Your task to perform on an android device: turn off improve location accuracy Image 0: 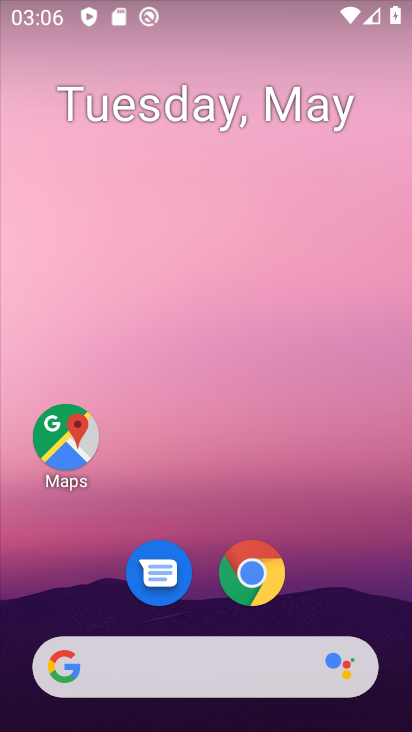
Step 0: drag from (192, 536) to (234, 109)
Your task to perform on an android device: turn off improve location accuracy Image 1: 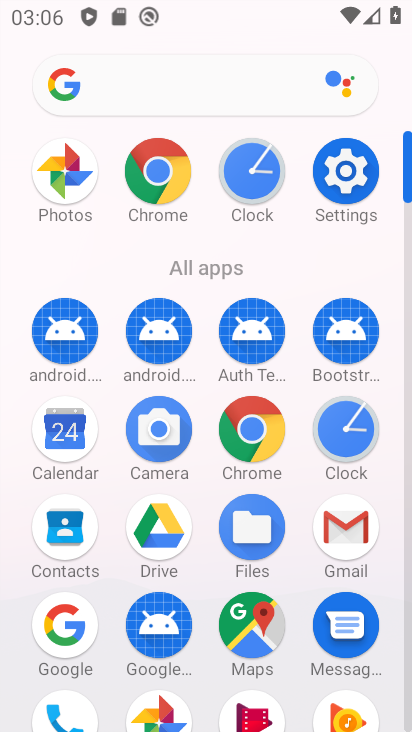
Step 1: click (335, 178)
Your task to perform on an android device: turn off improve location accuracy Image 2: 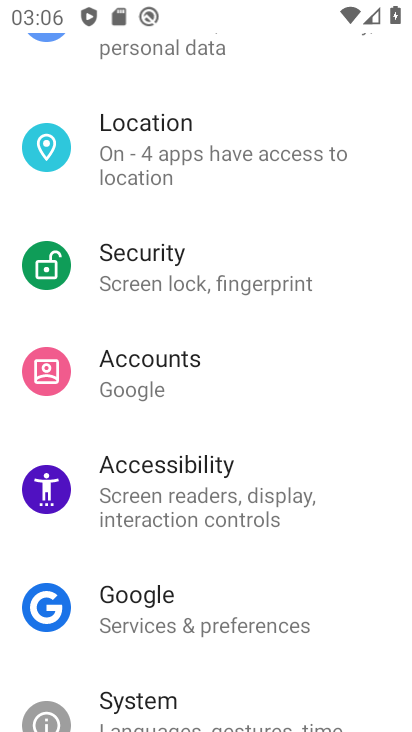
Step 2: click (164, 140)
Your task to perform on an android device: turn off improve location accuracy Image 3: 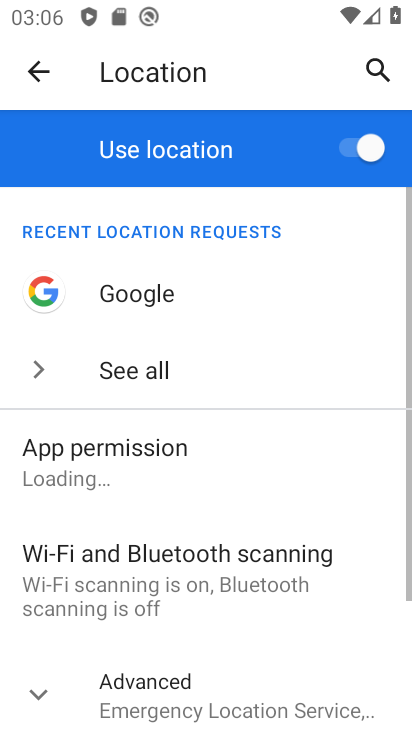
Step 3: drag from (152, 631) to (258, 231)
Your task to perform on an android device: turn off improve location accuracy Image 4: 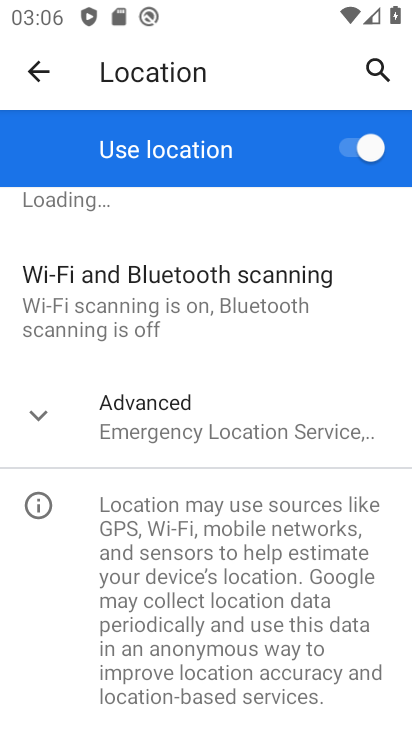
Step 4: click (191, 414)
Your task to perform on an android device: turn off improve location accuracy Image 5: 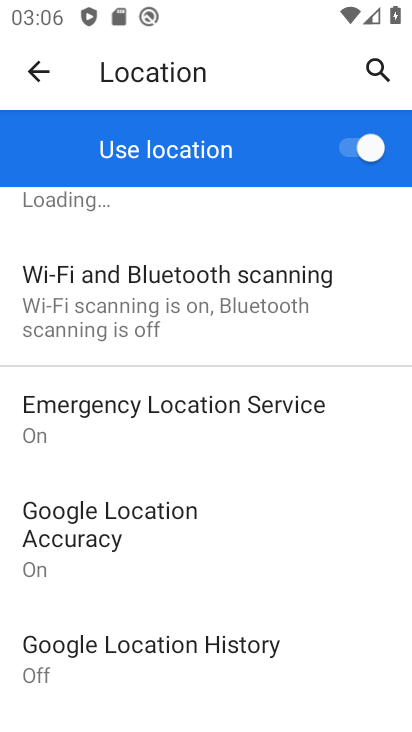
Step 5: click (115, 539)
Your task to perform on an android device: turn off improve location accuracy Image 6: 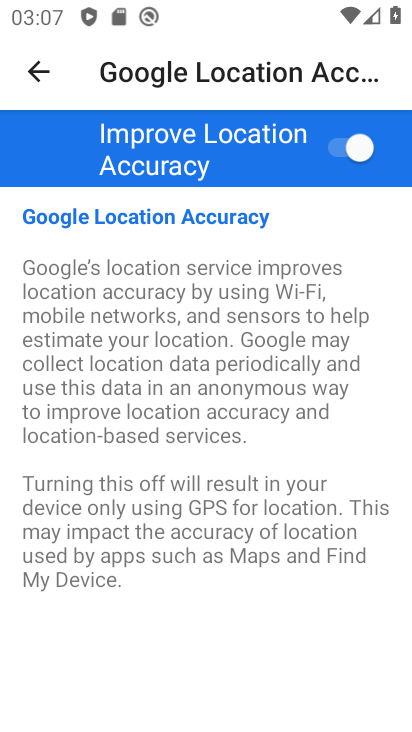
Step 6: click (355, 144)
Your task to perform on an android device: turn off improve location accuracy Image 7: 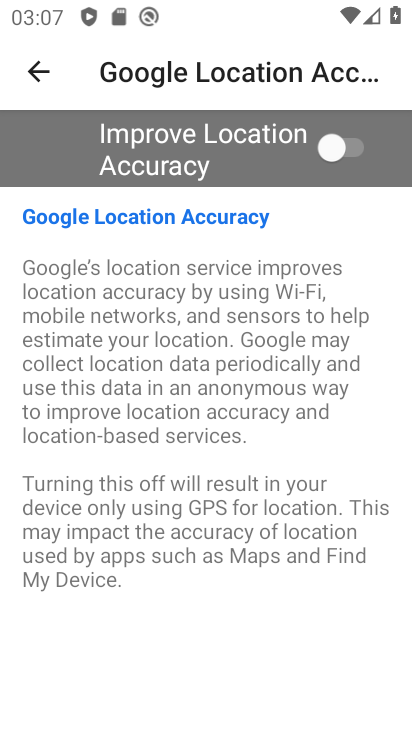
Step 7: task complete